Your task to perform on an android device: Open Google Maps and go to "Timeline" Image 0: 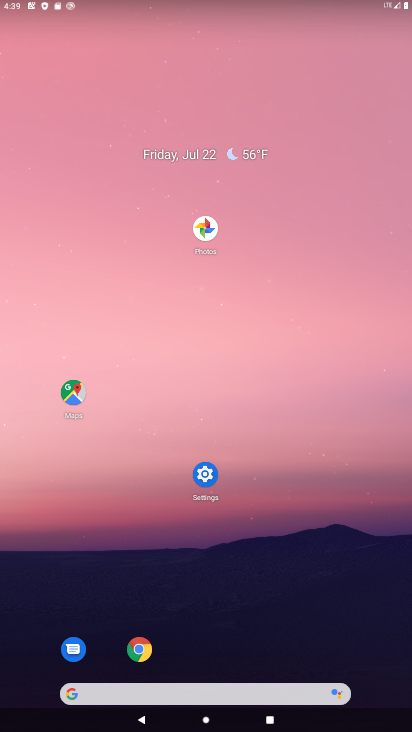
Step 0: press back button
Your task to perform on an android device: Open Google Maps and go to "Timeline" Image 1: 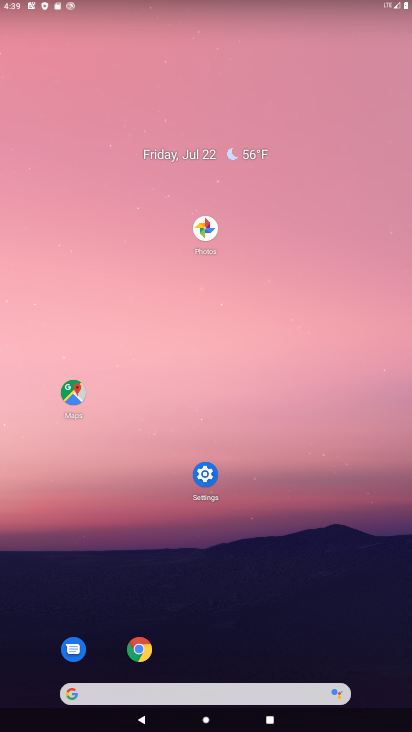
Step 1: drag from (169, 205) to (162, 149)
Your task to perform on an android device: Open Google Maps and go to "Timeline" Image 2: 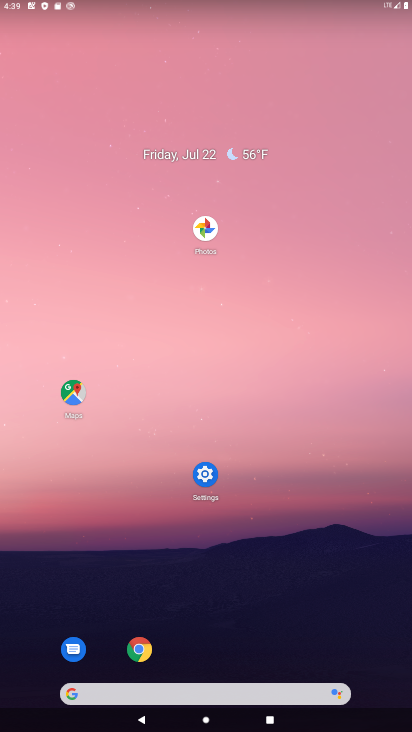
Step 2: drag from (254, 453) to (219, 69)
Your task to perform on an android device: Open Google Maps and go to "Timeline" Image 3: 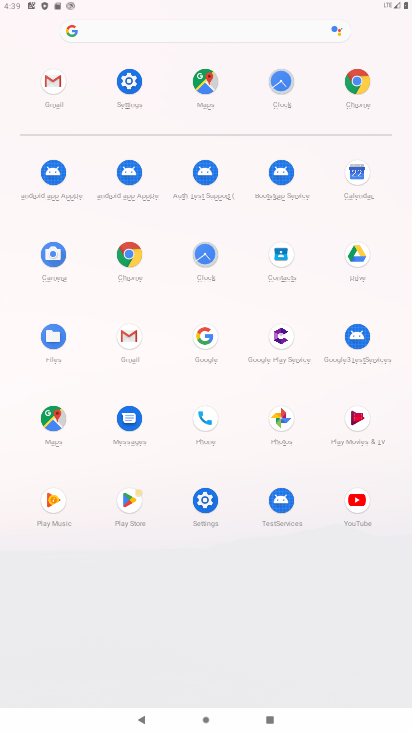
Step 3: drag from (236, 278) to (213, 102)
Your task to perform on an android device: Open Google Maps and go to "Timeline" Image 4: 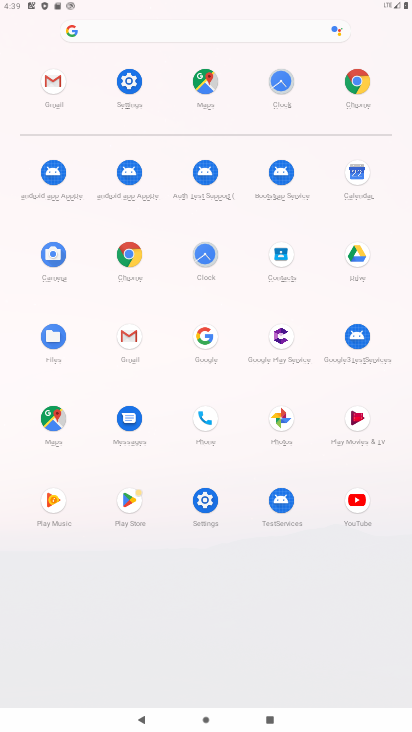
Step 4: click (56, 423)
Your task to perform on an android device: Open Google Maps and go to "Timeline" Image 5: 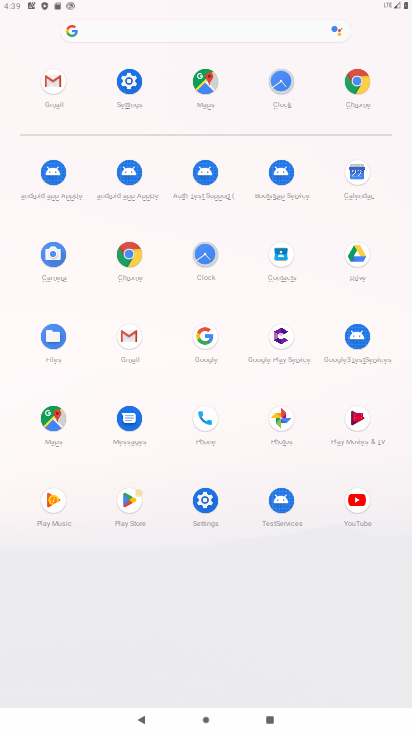
Step 5: click (56, 422)
Your task to perform on an android device: Open Google Maps and go to "Timeline" Image 6: 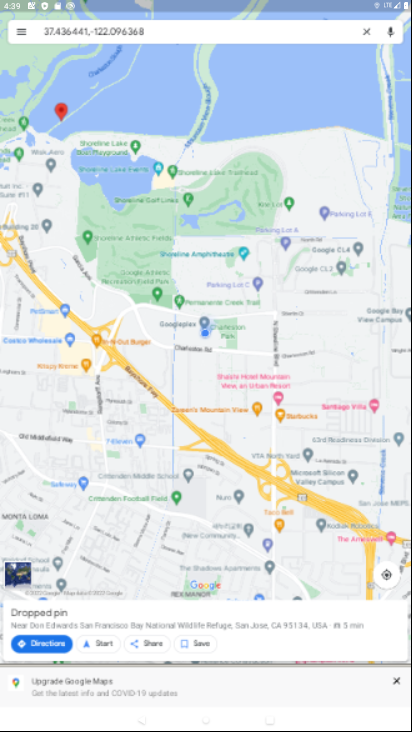
Step 6: click (48, 411)
Your task to perform on an android device: Open Google Maps and go to "Timeline" Image 7: 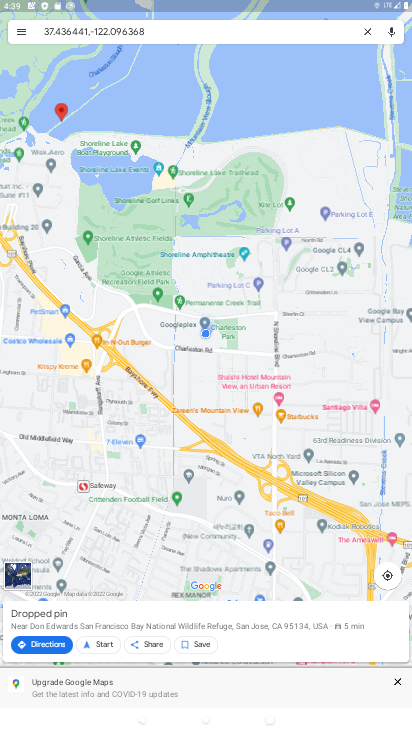
Step 7: click (47, 25)
Your task to perform on an android device: Open Google Maps and go to "Timeline" Image 8: 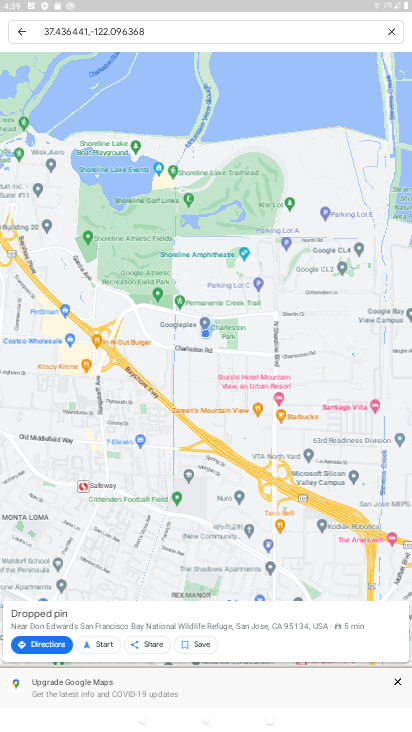
Step 8: click (18, 34)
Your task to perform on an android device: Open Google Maps and go to "Timeline" Image 9: 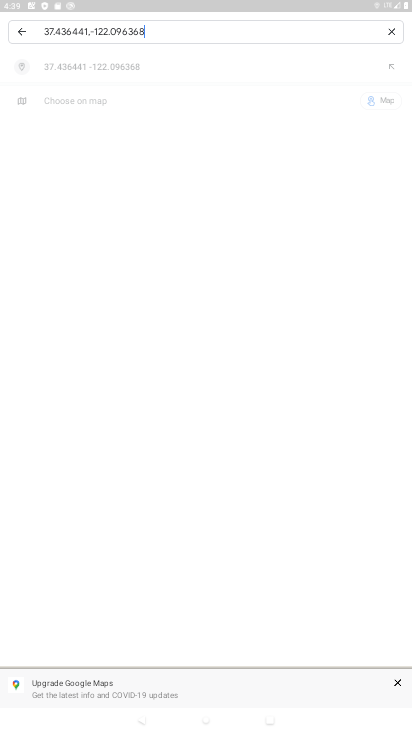
Step 9: click (28, 32)
Your task to perform on an android device: Open Google Maps and go to "Timeline" Image 10: 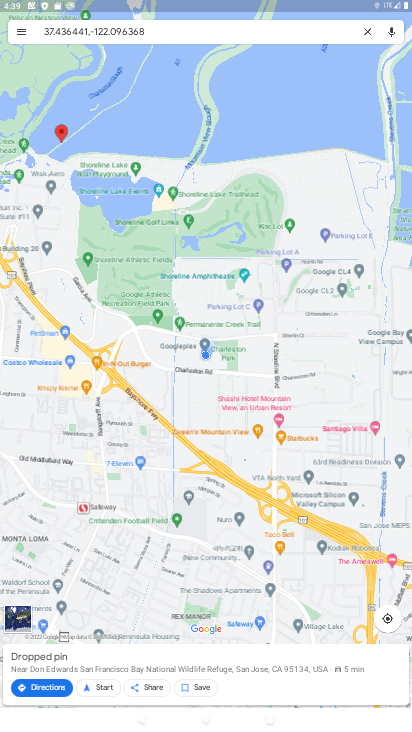
Step 10: click (22, 31)
Your task to perform on an android device: Open Google Maps and go to "Timeline" Image 11: 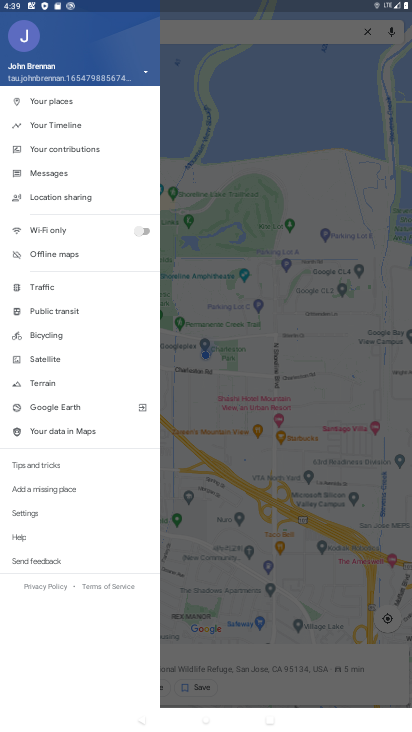
Step 11: click (46, 130)
Your task to perform on an android device: Open Google Maps and go to "Timeline" Image 12: 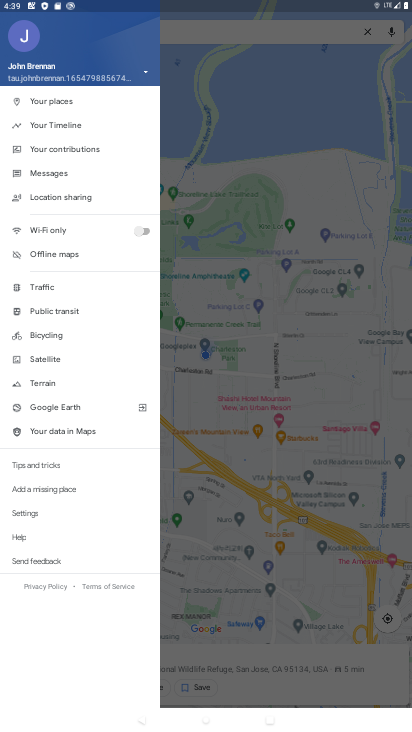
Step 12: click (52, 128)
Your task to perform on an android device: Open Google Maps and go to "Timeline" Image 13: 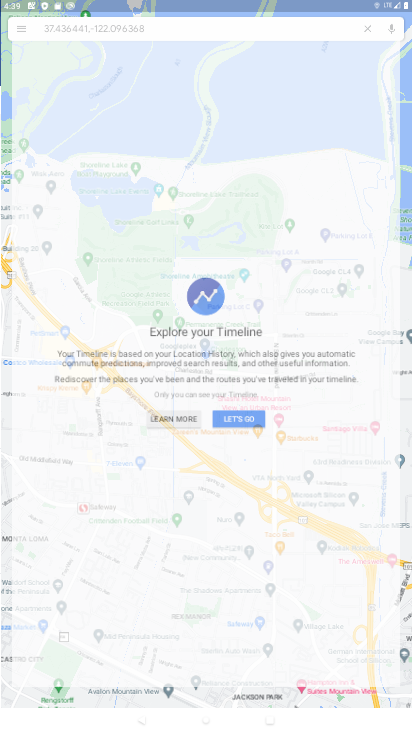
Step 13: click (56, 128)
Your task to perform on an android device: Open Google Maps and go to "Timeline" Image 14: 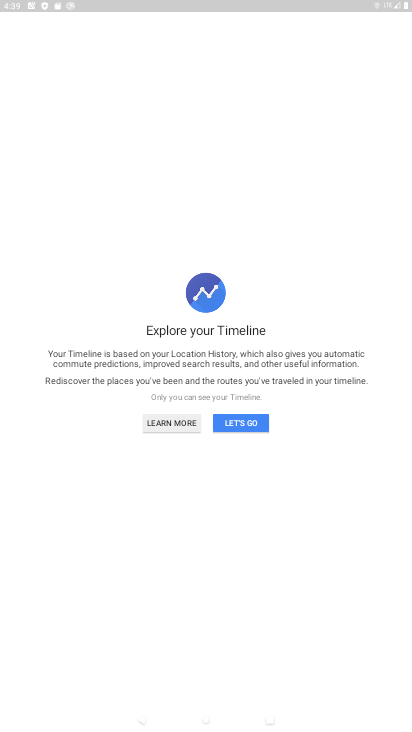
Step 14: click (230, 425)
Your task to perform on an android device: Open Google Maps and go to "Timeline" Image 15: 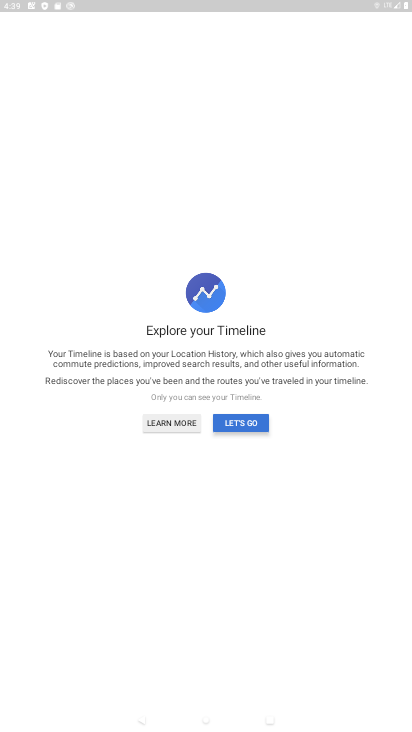
Step 15: click (230, 425)
Your task to perform on an android device: Open Google Maps and go to "Timeline" Image 16: 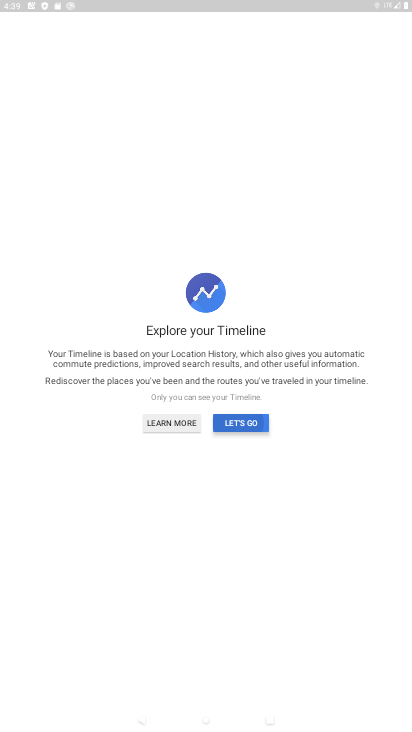
Step 16: click (234, 422)
Your task to perform on an android device: Open Google Maps and go to "Timeline" Image 17: 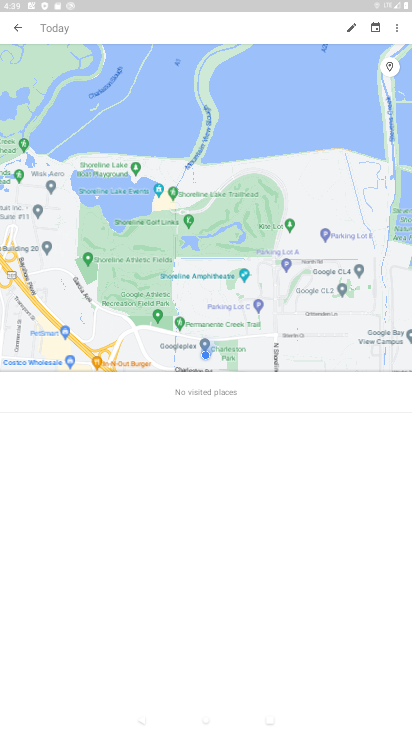
Step 17: click (233, 415)
Your task to perform on an android device: Open Google Maps and go to "Timeline" Image 18: 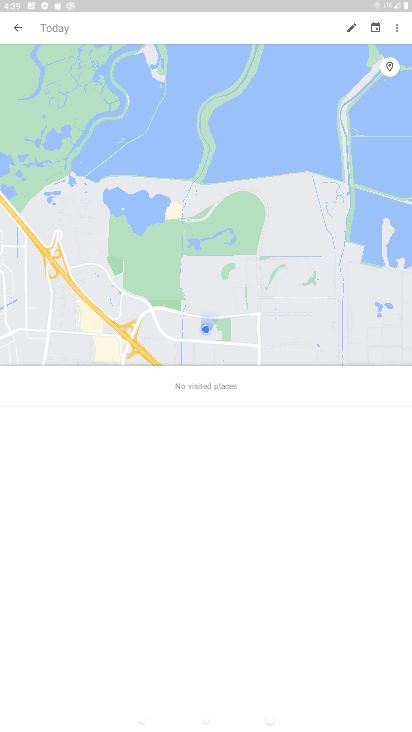
Step 18: click (238, 419)
Your task to perform on an android device: Open Google Maps and go to "Timeline" Image 19: 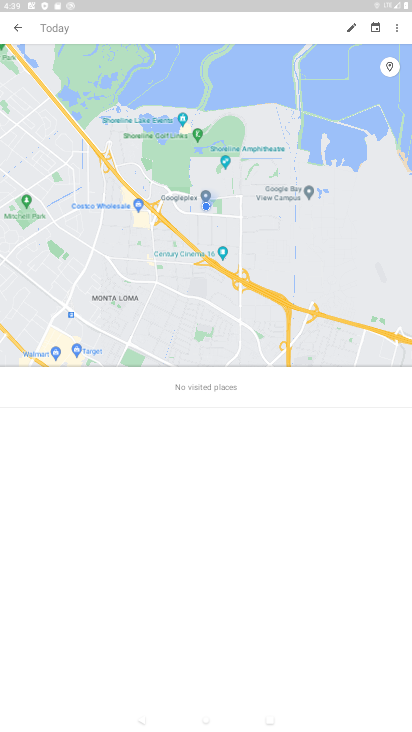
Step 19: click (242, 421)
Your task to perform on an android device: Open Google Maps and go to "Timeline" Image 20: 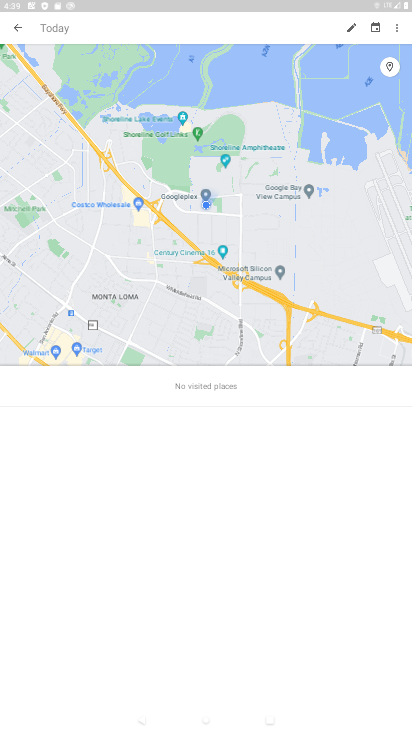
Step 20: task complete